Your task to perform on an android device: change notifications settings Image 0: 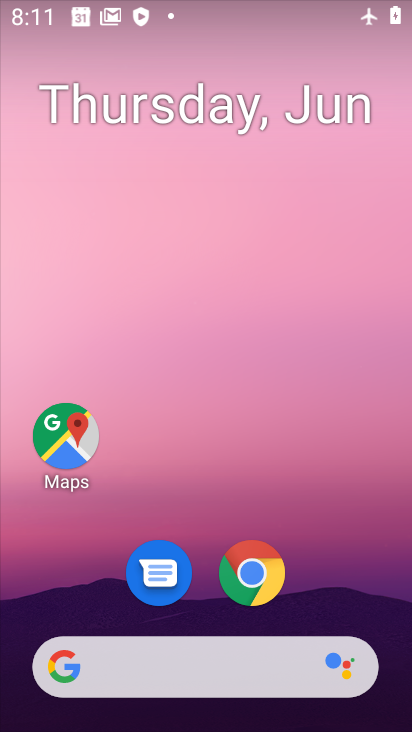
Step 0: drag from (248, 590) to (192, 135)
Your task to perform on an android device: change notifications settings Image 1: 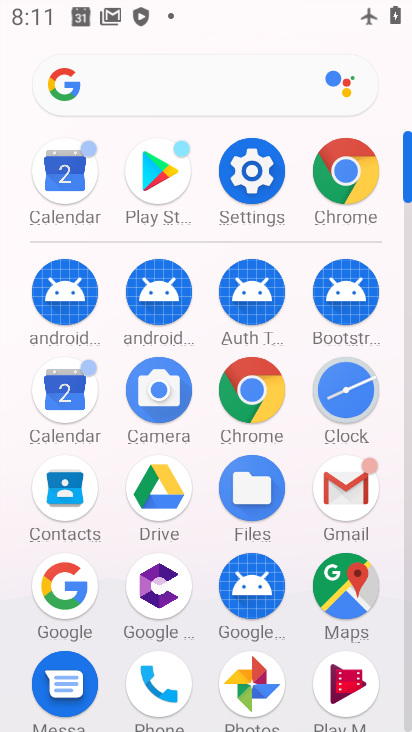
Step 1: click (247, 155)
Your task to perform on an android device: change notifications settings Image 2: 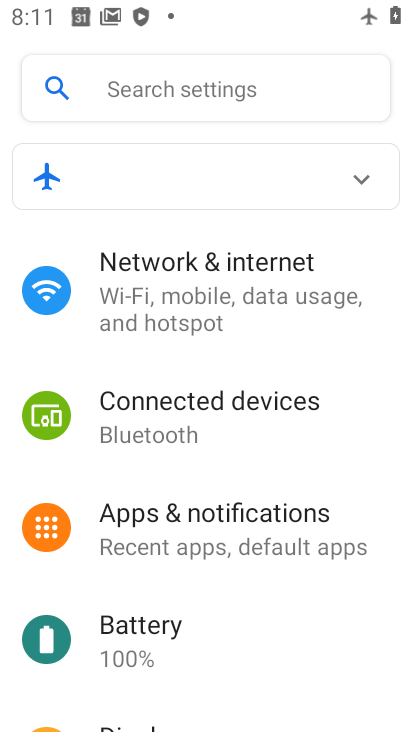
Step 2: click (185, 528)
Your task to perform on an android device: change notifications settings Image 3: 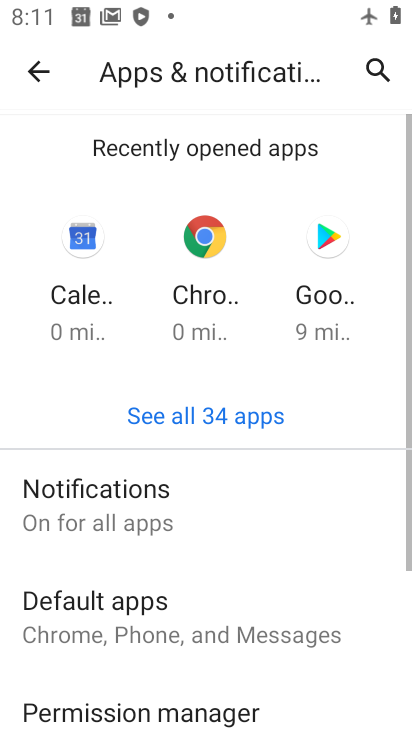
Step 3: click (171, 530)
Your task to perform on an android device: change notifications settings Image 4: 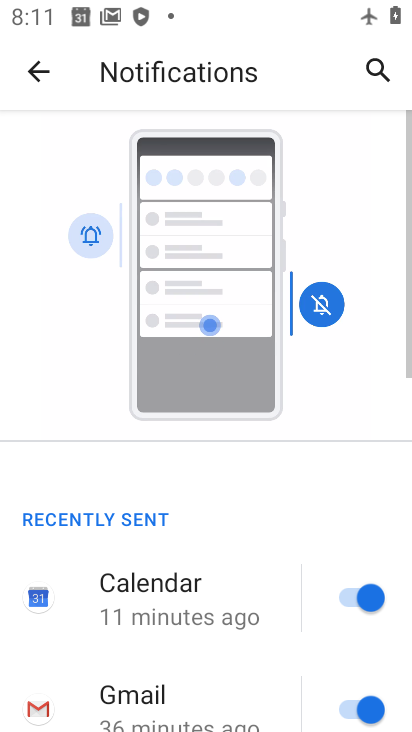
Step 4: drag from (198, 585) to (201, 396)
Your task to perform on an android device: change notifications settings Image 5: 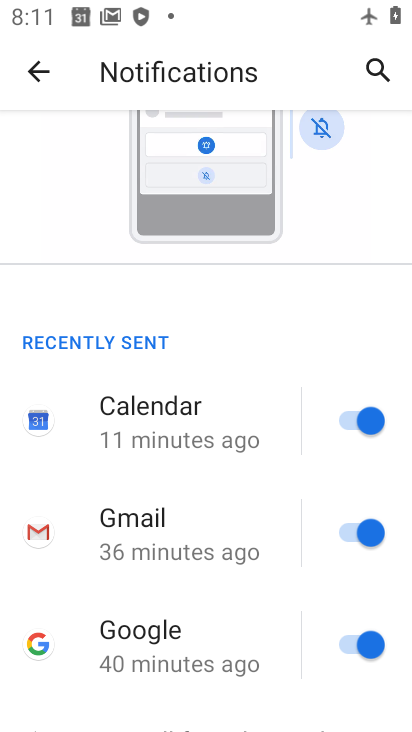
Step 5: drag from (173, 518) to (208, 267)
Your task to perform on an android device: change notifications settings Image 6: 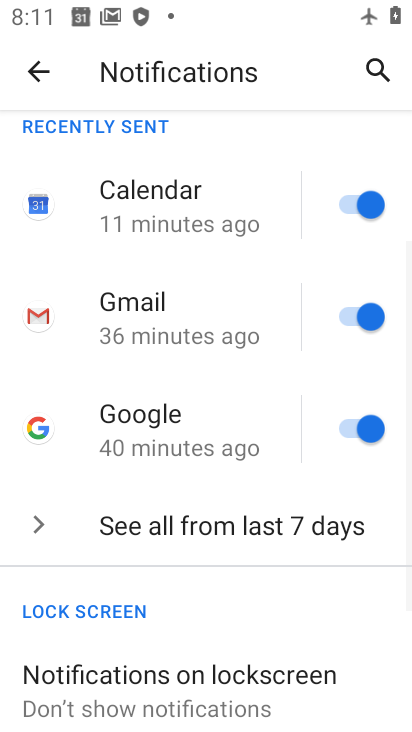
Step 6: drag from (170, 633) to (197, 448)
Your task to perform on an android device: change notifications settings Image 7: 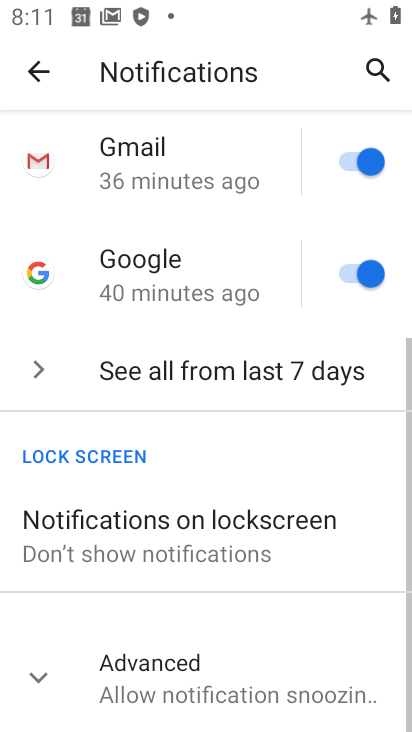
Step 7: click (128, 543)
Your task to perform on an android device: change notifications settings Image 8: 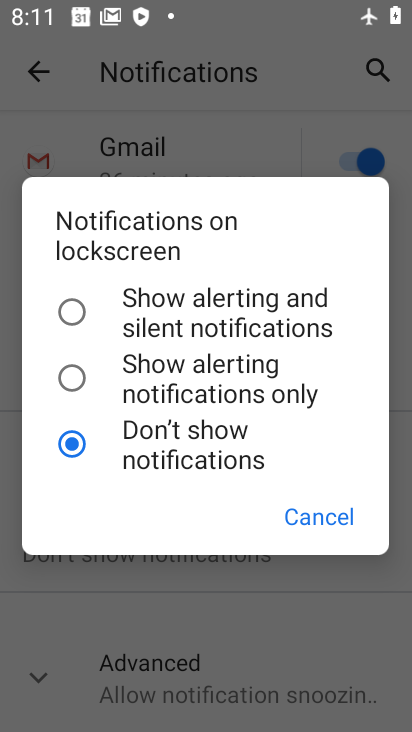
Step 8: click (128, 293)
Your task to perform on an android device: change notifications settings Image 9: 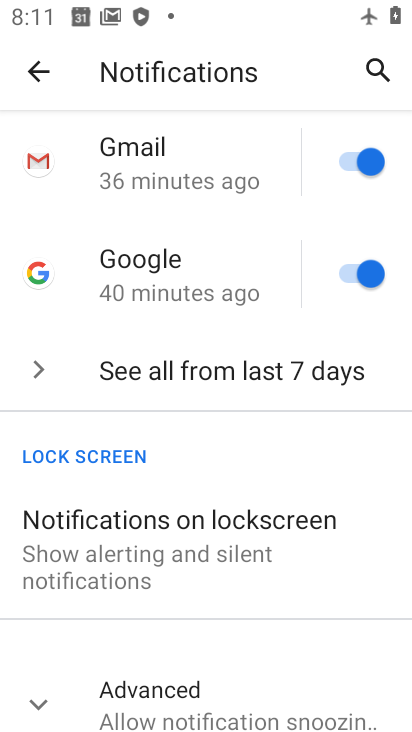
Step 9: task complete